Your task to perform on an android device: Go to settings Image 0: 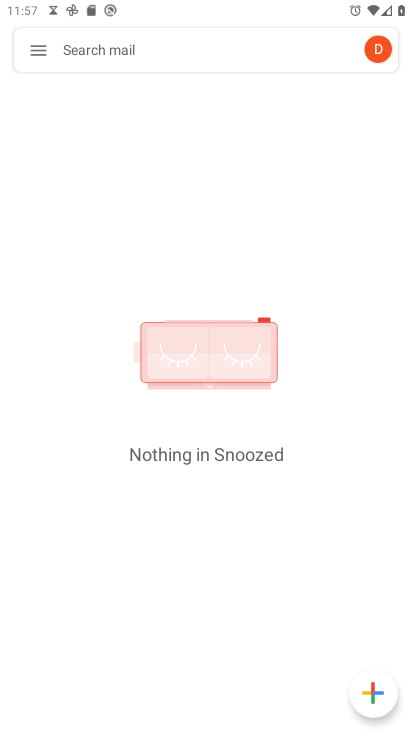
Step 0: press home button
Your task to perform on an android device: Go to settings Image 1: 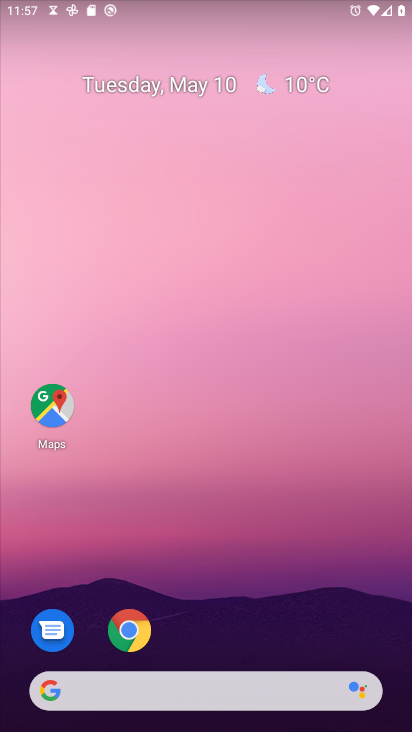
Step 1: drag from (216, 635) to (220, 103)
Your task to perform on an android device: Go to settings Image 2: 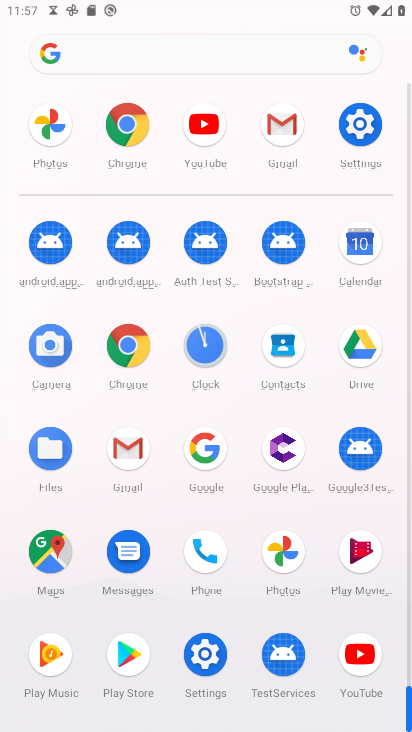
Step 2: click (359, 118)
Your task to perform on an android device: Go to settings Image 3: 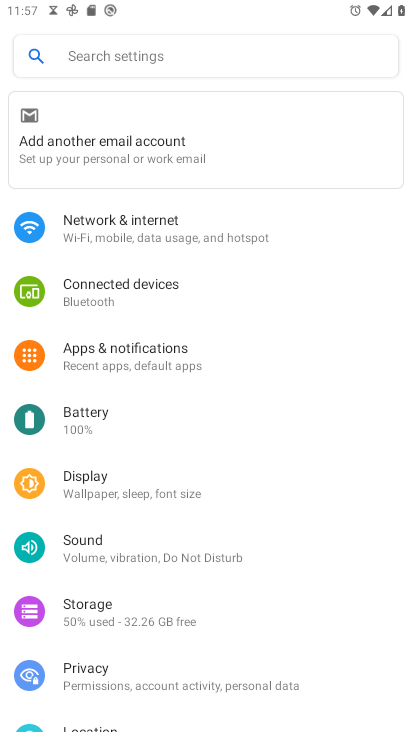
Step 3: task complete